Your task to perform on an android device: Open the phone app and click the voicemail tab. Image 0: 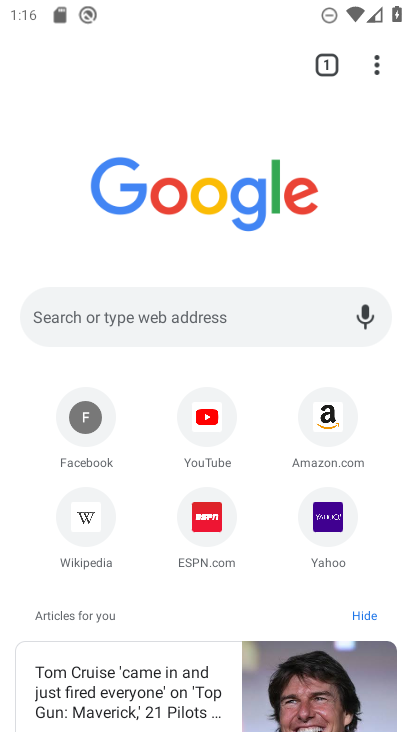
Step 0: press home button
Your task to perform on an android device: Open the phone app and click the voicemail tab. Image 1: 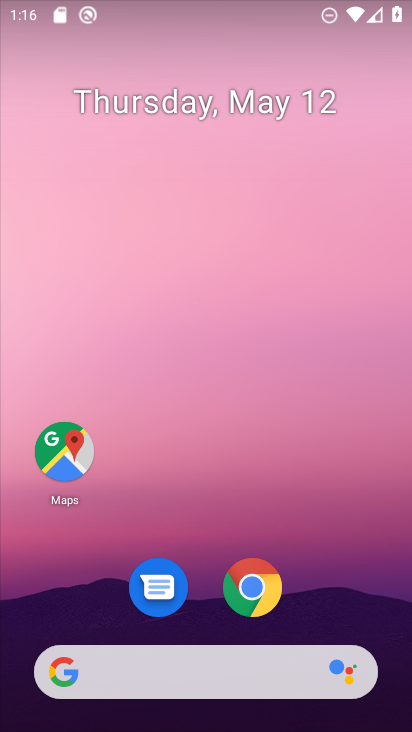
Step 1: drag from (311, 536) to (233, 14)
Your task to perform on an android device: Open the phone app and click the voicemail tab. Image 2: 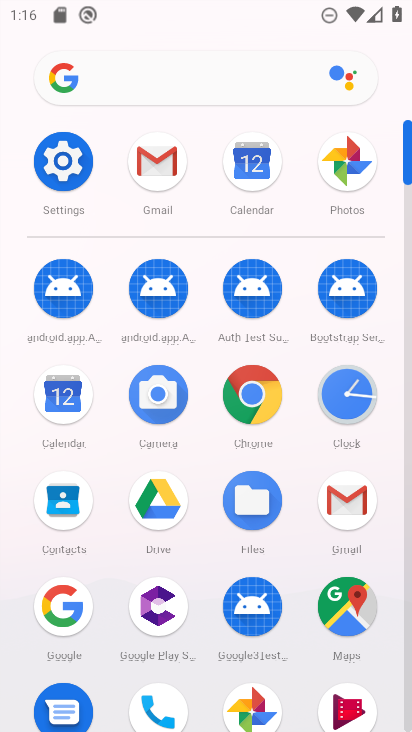
Step 2: click (151, 705)
Your task to perform on an android device: Open the phone app and click the voicemail tab. Image 3: 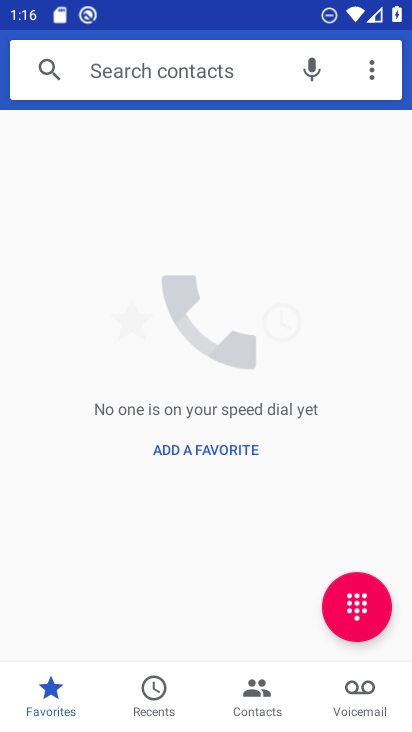
Step 3: click (359, 688)
Your task to perform on an android device: Open the phone app and click the voicemail tab. Image 4: 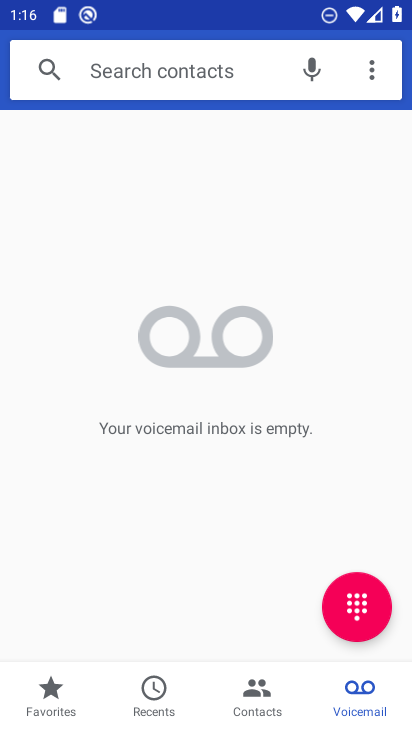
Step 4: task complete